Your task to perform on an android device: change timer sound Image 0: 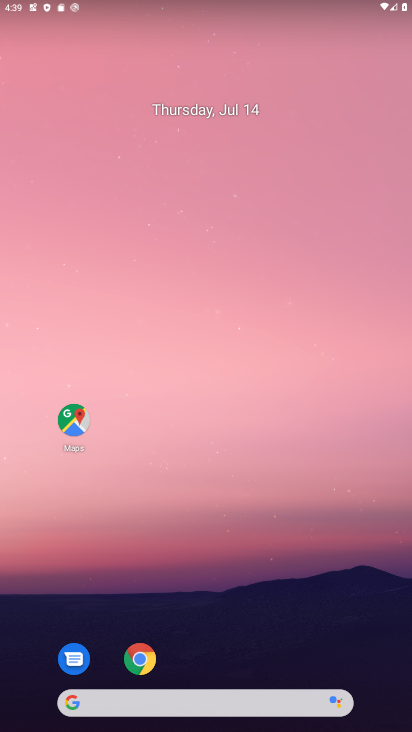
Step 0: drag from (197, 596) to (252, 235)
Your task to perform on an android device: change timer sound Image 1: 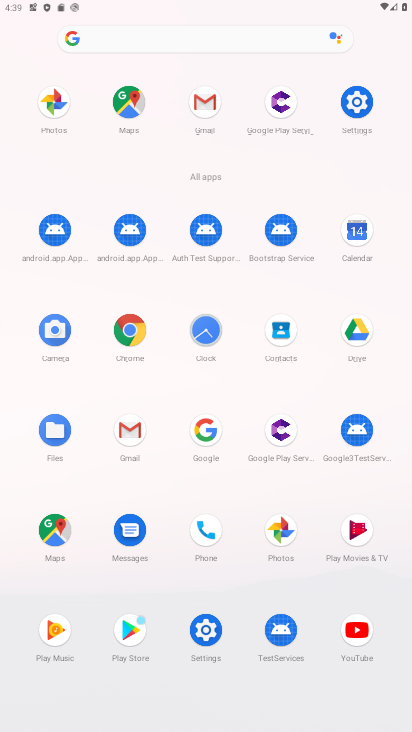
Step 1: click (200, 331)
Your task to perform on an android device: change timer sound Image 2: 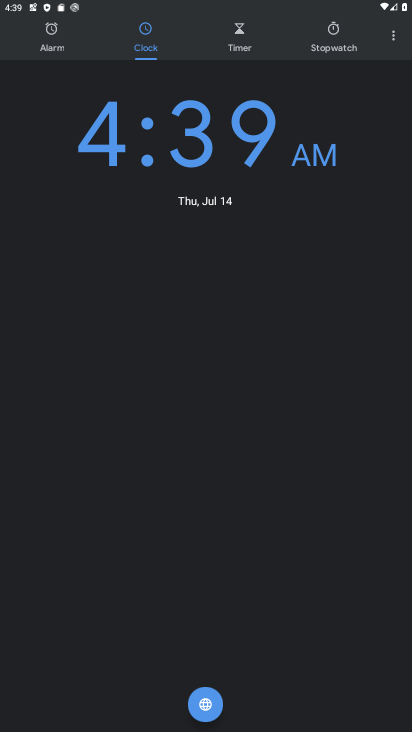
Step 2: drag from (386, 39) to (364, 71)
Your task to perform on an android device: change timer sound Image 3: 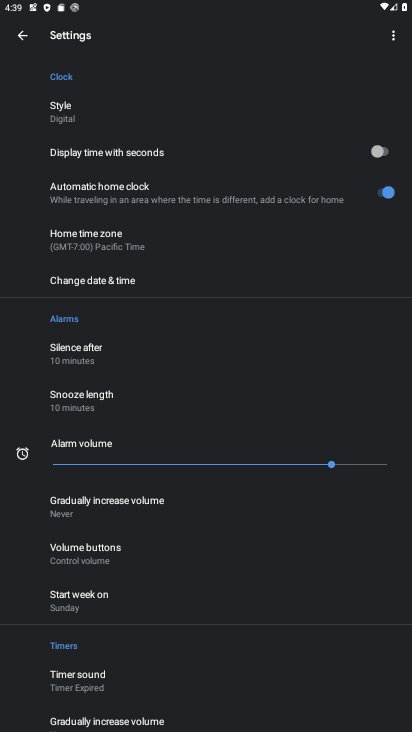
Step 3: drag from (144, 627) to (217, 418)
Your task to perform on an android device: change timer sound Image 4: 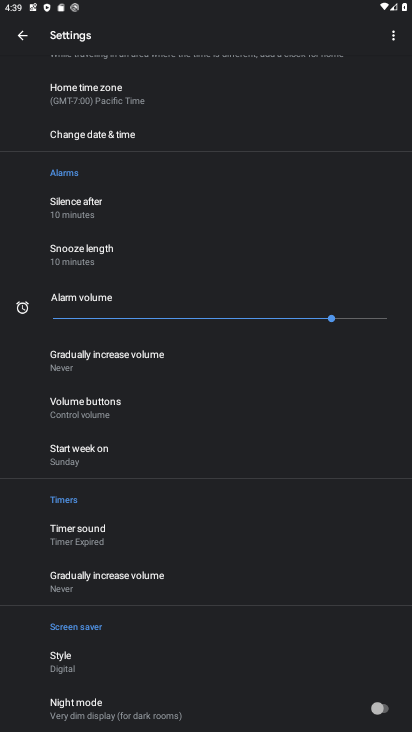
Step 4: click (139, 530)
Your task to perform on an android device: change timer sound Image 5: 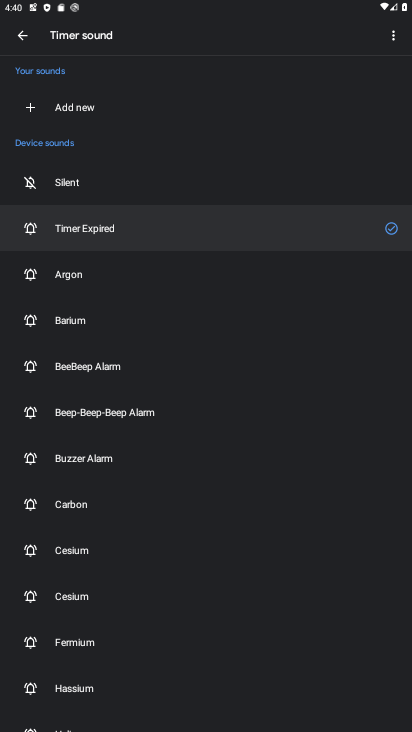
Step 5: click (129, 649)
Your task to perform on an android device: change timer sound Image 6: 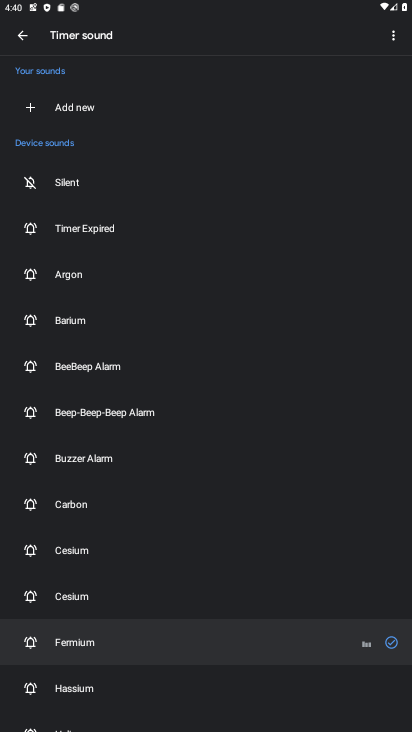
Step 6: task complete